Your task to perform on an android device: turn on wifi Image 0: 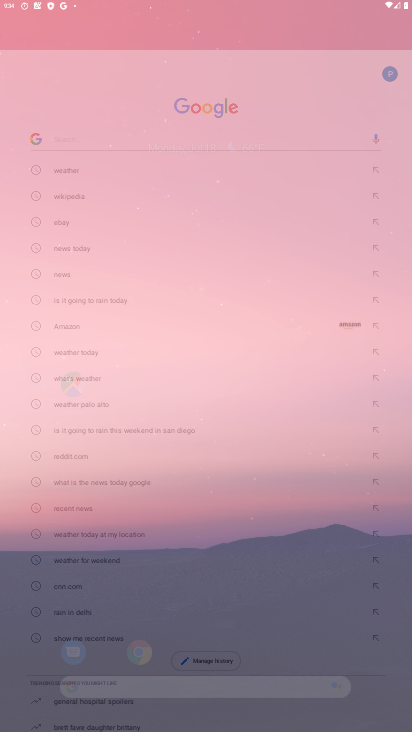
Step 0: click (212, 141)
Your task to perform on an android device: turn on wifi Image 1: 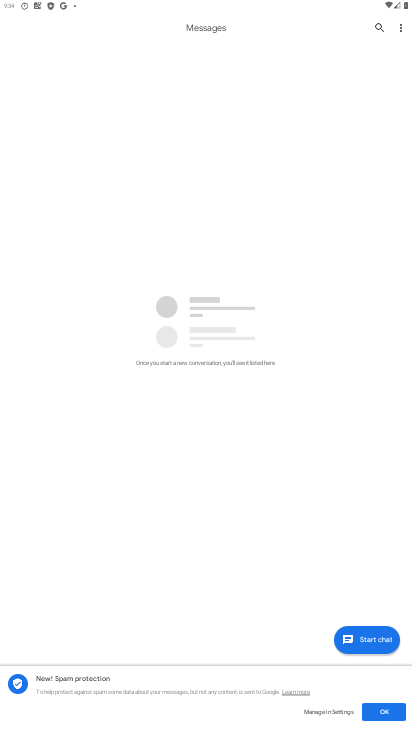
Step 1: press home button
Your task to perform on an android device: turn on wifi Image 2: 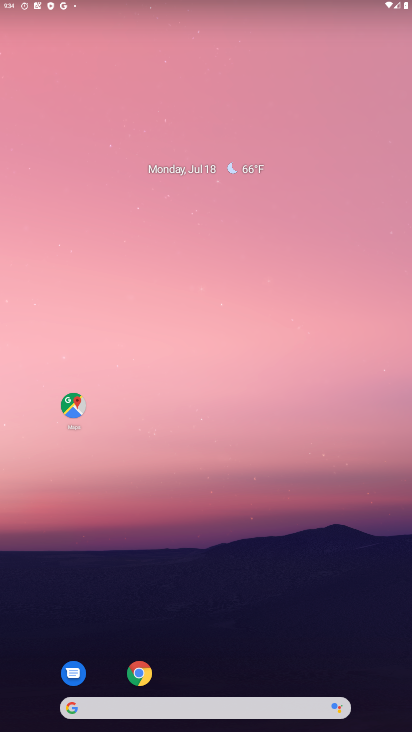
Step 2: drag from (189, 644) to (228, 90)
Your task to perform on an android device: turn on wifi Image 3: 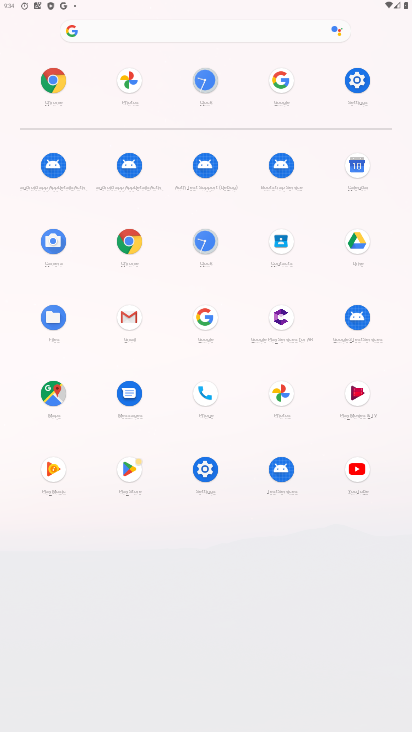
Step 3: click (204, 468)
Your task to perform on an android device: turn on wifi Image 4: 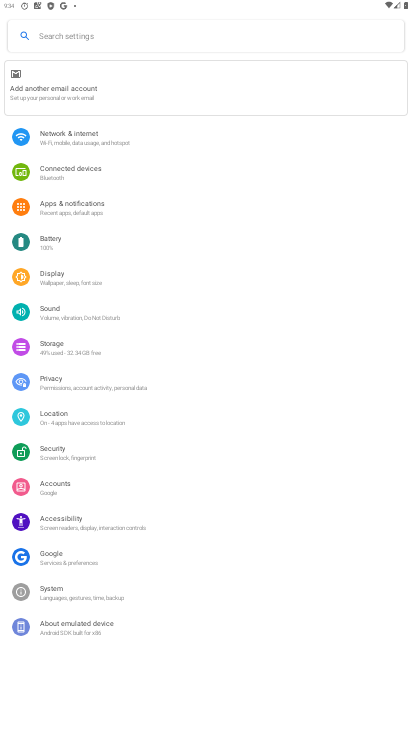
Step 4: click (93, 137)
Your task to perform on an android device: turn on wifi Image 5: 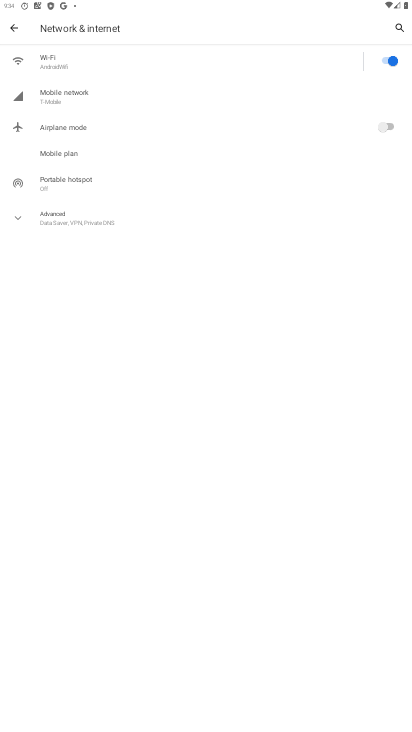
Step 5: task complete